Your task to perform on an android device: Show me popular videos on Youtube Image 0: 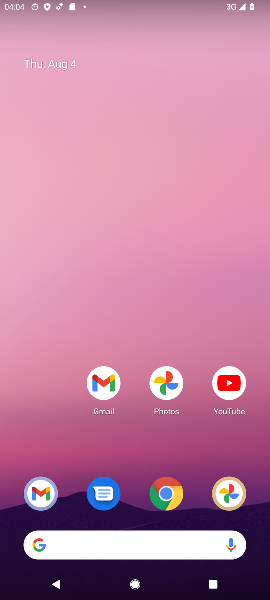
Step 0: click (221, 383)
Your task to perform on an android device: Show me popular videos on Youtube Image 1: 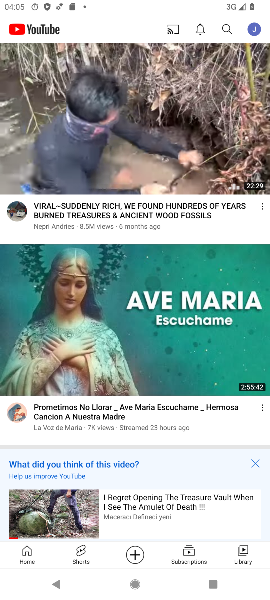
Step 1: click (226, 31)
Your task to perform on an android device: Show me popular videos on Youtube Image 2: 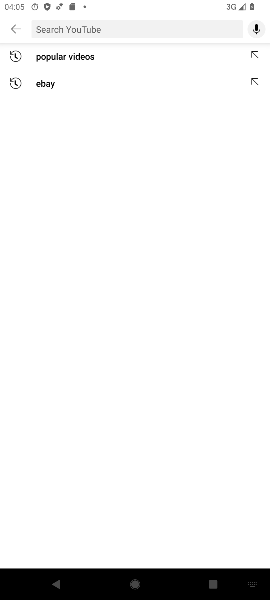
Step 2: click (76, 52)
Your task to perform on an android device: Show me popular videos on Youtube Image 3: 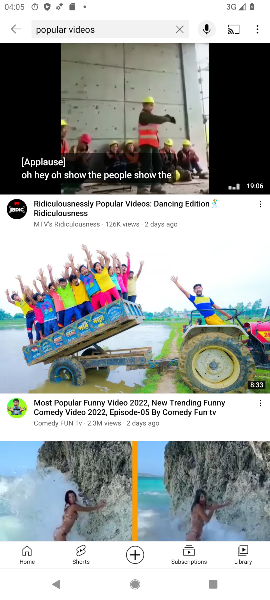
Step 3: task complete